Your task to perform on an android device: open chrome privacy settings Image 0: 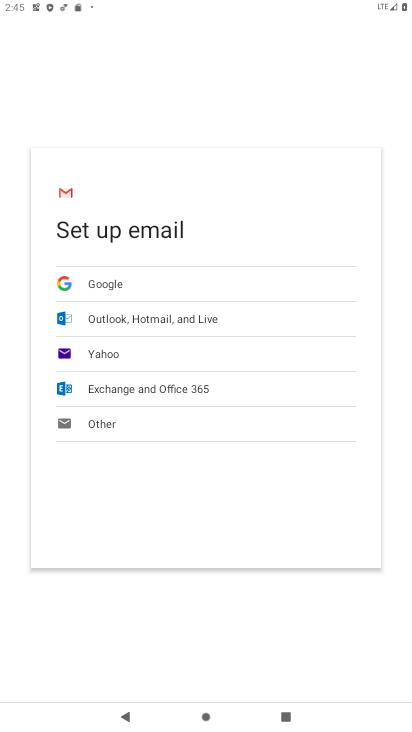
Step 0: press home button
Your task to perform on an android device: open chrome privacy settings Image 1: 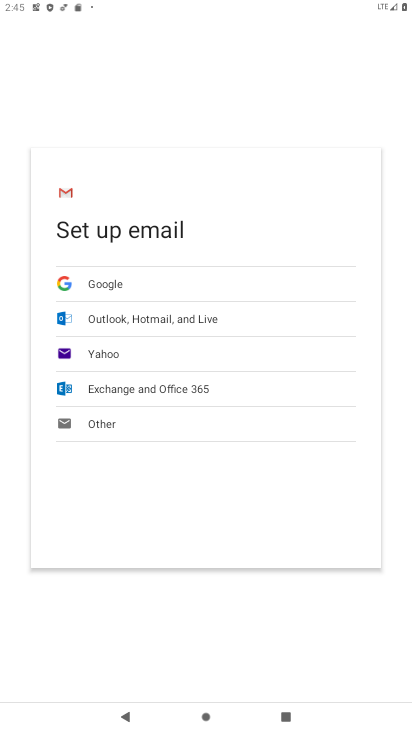
Step 1: click (233, 0)
Your task to perform on an android device: open chrome privacy settings Image 2: 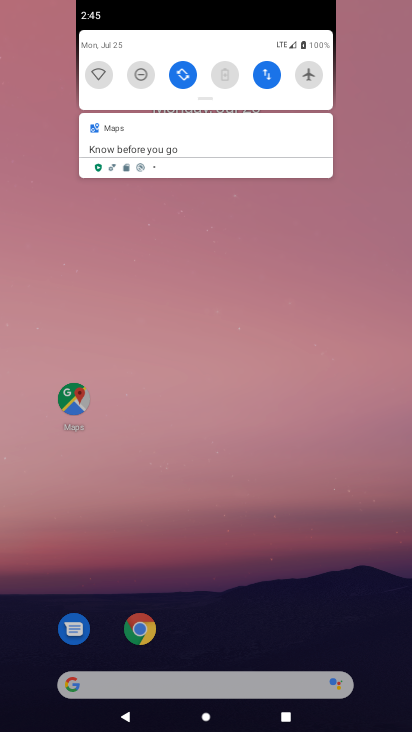
Step 2: press home button
Your task to perform on an android device: open chrome privacy settings Image 3: 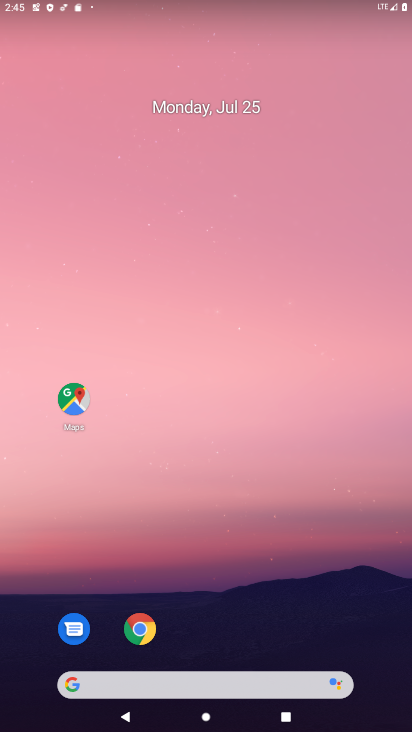
Step 3: drag from (234, 639) to (287, 17)
Your task to perform on an android device: open chrome privacy settings Image 4: 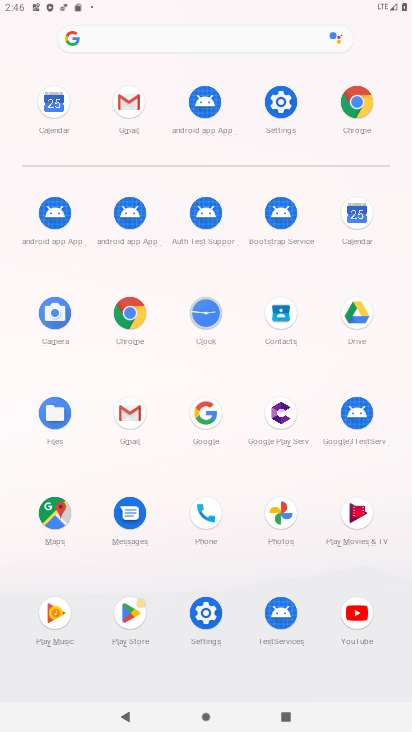
Step 4: click (126, 302)
Your task to perform on an android device: open chrome privacy settings Image 5: 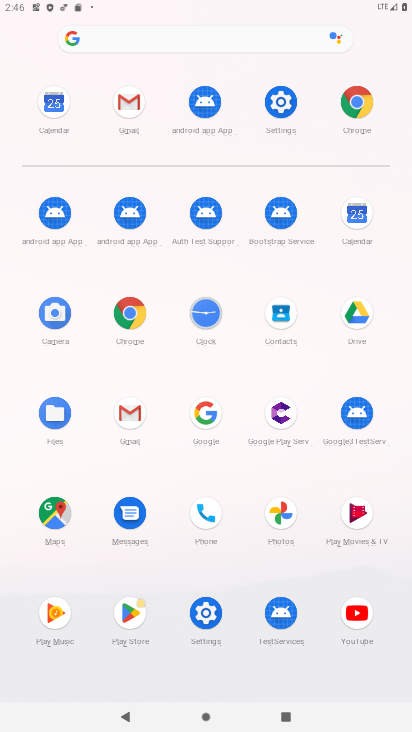
Step 5: click (126, 302)
Your task to perform on an android device: open chrome privacy settings Image 6: 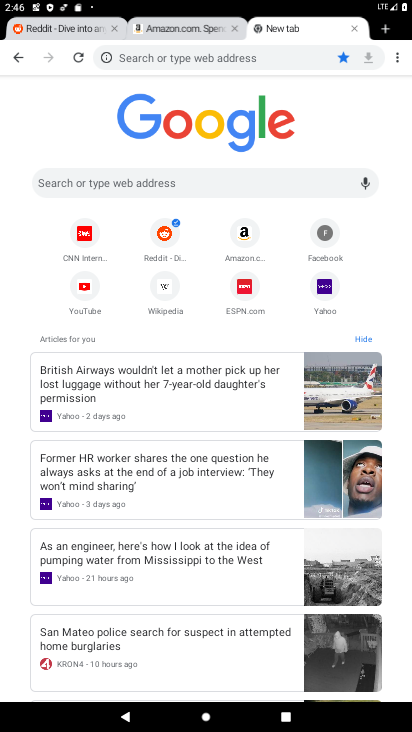
Step 6: drag from (398, 55) to (295, 293)
Your task to perform on an android device: open chrome privacy settings Image 7: 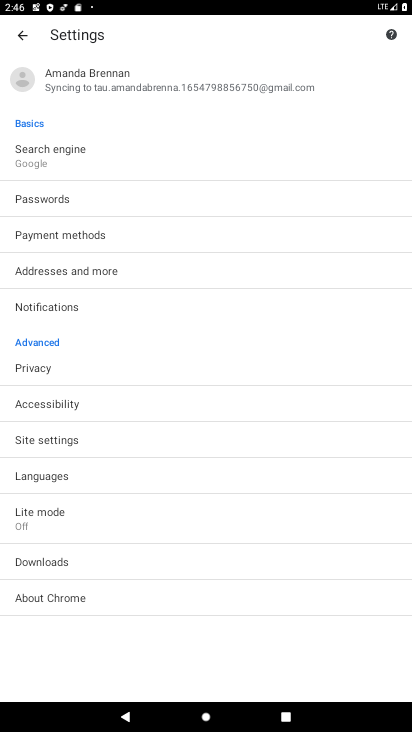
Step 7: click (54, 433)
Your task to perform on an android device: open chrome privacy settings Image 8: 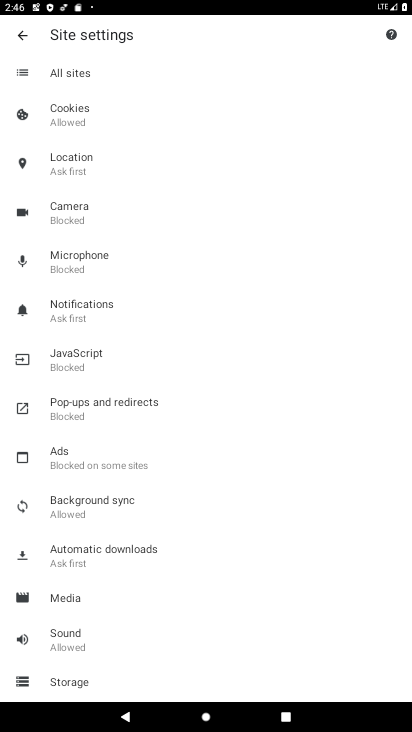
Step 8: click (18, 29)
Your task to perform on an android device: open chrome privacy settings Image 9: 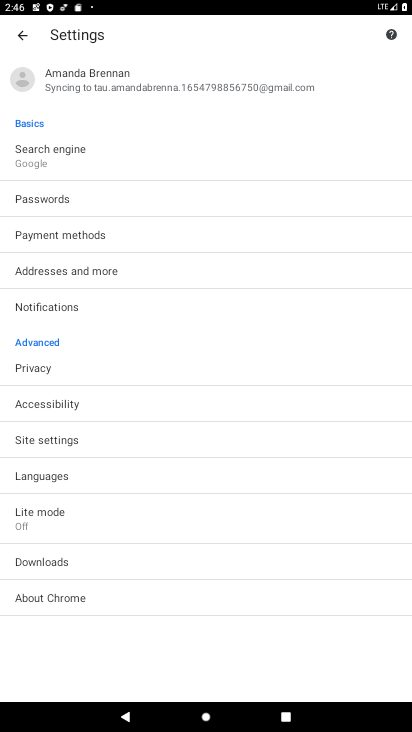
Step 9: click (57, 367)
Your task to perform on an android device: open chrome privacy settings Image 10: 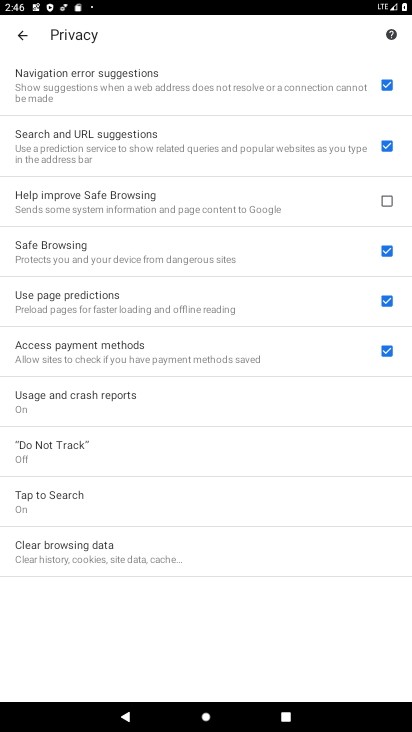
Step 10: task complete